Your task to perform on an android device: turn off notifications in google photos Image 0: 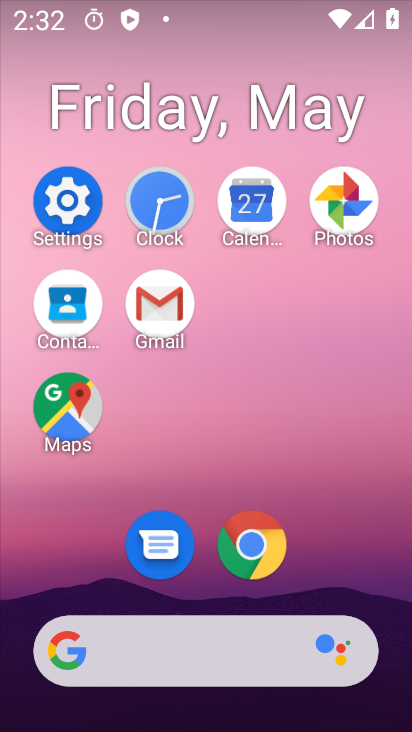
Step 0: click (346, 220)
Your task to perform on an android device: turn off notifications in google photos Image 1: 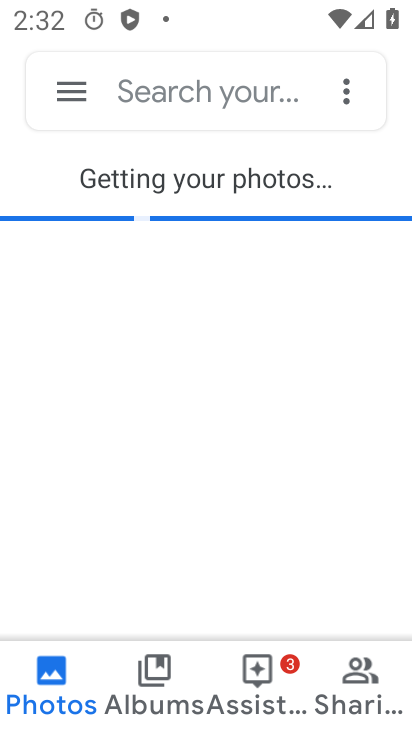
Step 1: click (71, 97)
Your task to perform on an android device: turn off notifications in google photos Image 2: 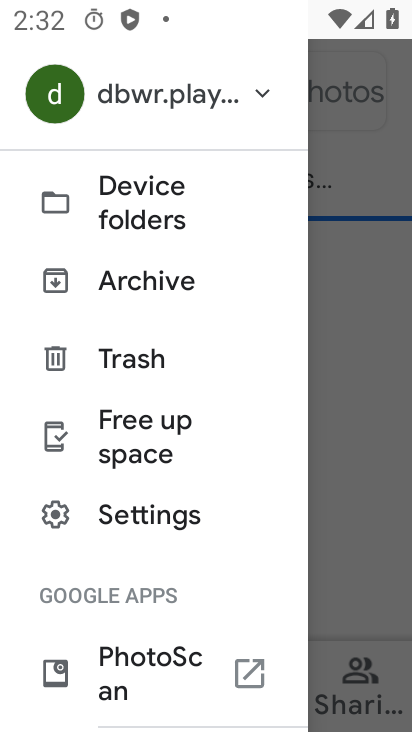
Step 2: drag from (140, 617) to (138, 203)
Your task to perform on an android device: turn off notifications in google photos Image 3: 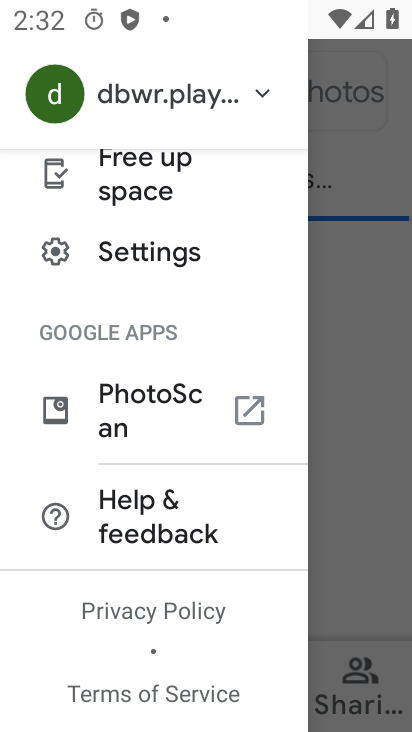
Step 3: click (149, 264)
Your task to perform on an android device: turn off notifications in google photos Image 4: 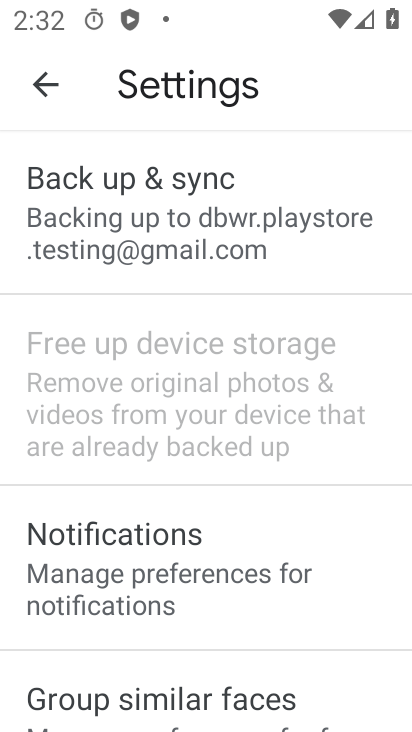
Step 4: click (184, 531)
Your task to perform on an android device: turn off notifications in google photos Image 5: 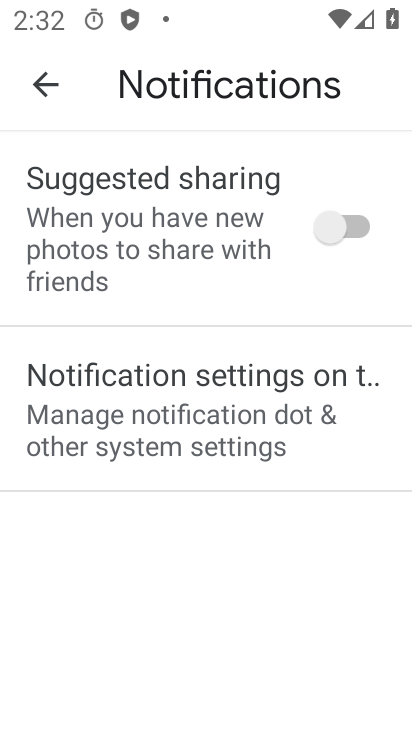
Step 5: click (293, 380)
Your task to perform on an android device: turn off notifications in google photos Image 6: 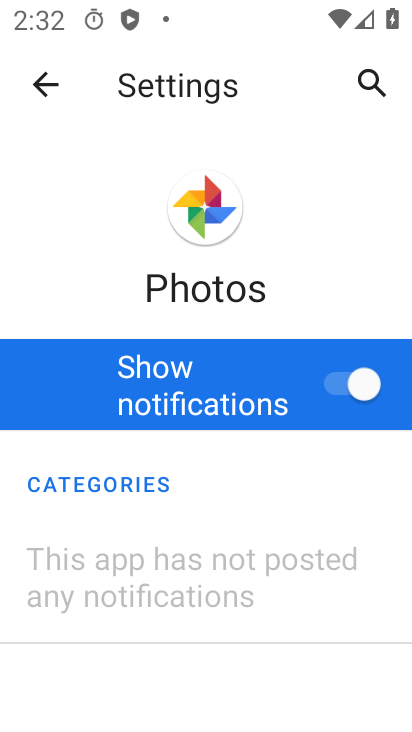
Step 6: click (345, 382)
Your task to perform on an android device: turn off notifications in google photos Image 7: 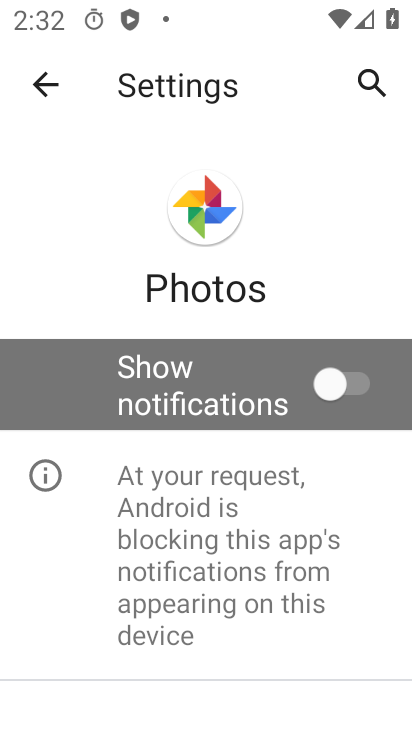
Step 7: task complete